Your task to perform on an android device: Go to internet settings Image 0: 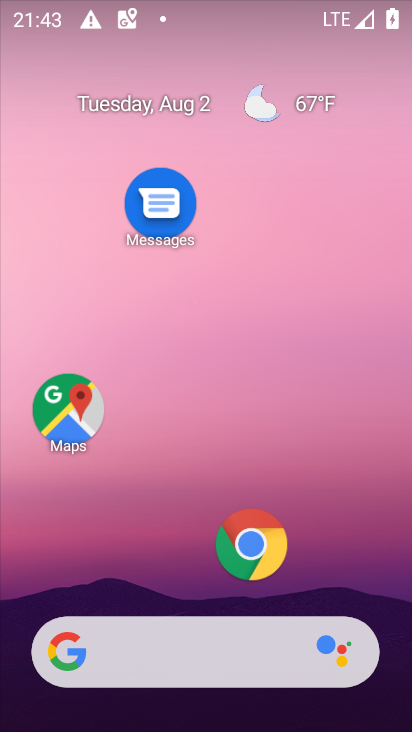
Step 0: drag from (187, 584) to (189, 196)
Your task to perform on an android device: Go to internet settings Image 1: 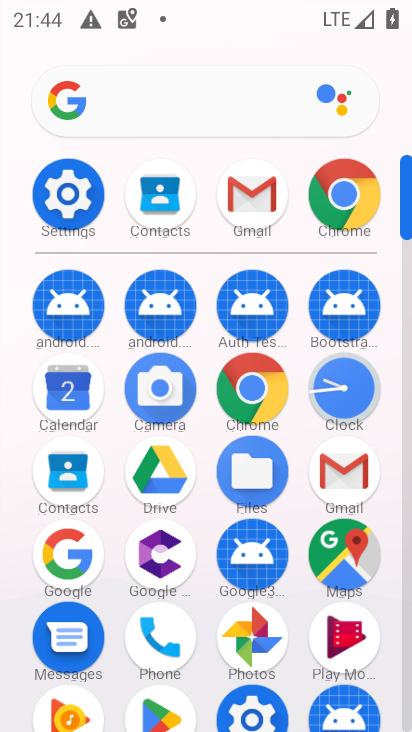
Step 1: click (97, 211)
Your task to perform on an android device: Go to internet settings Image 2: 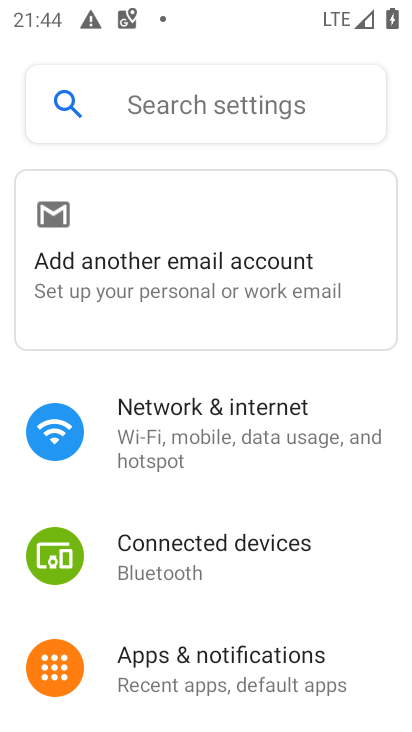
Step 2: click (194, 402)
Your task to perform on an android device: Go to internet settings Image 3: 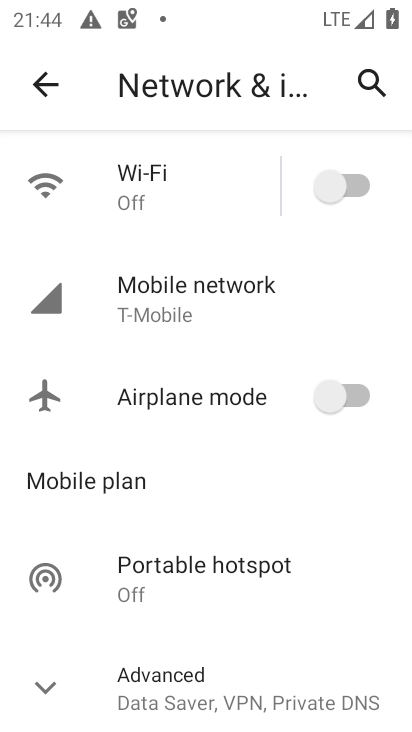
Step 3: task complete